Your task to perform on an android device: change keyboard looks Image 0: 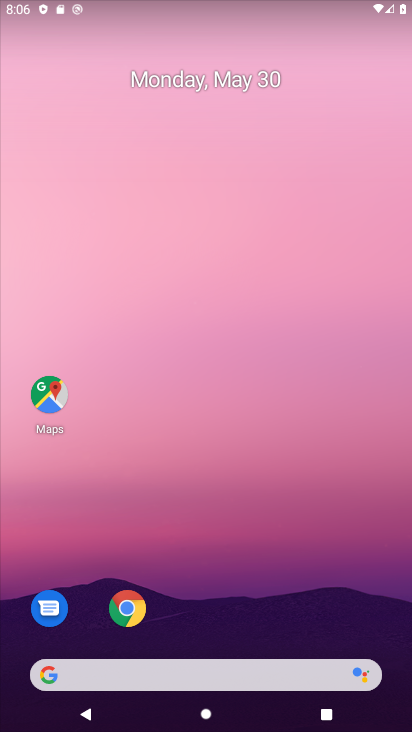
Step 0: drag from (388, 694) to (406, 37)
Your task to perform on an android device: change keyboard looks Image 1: 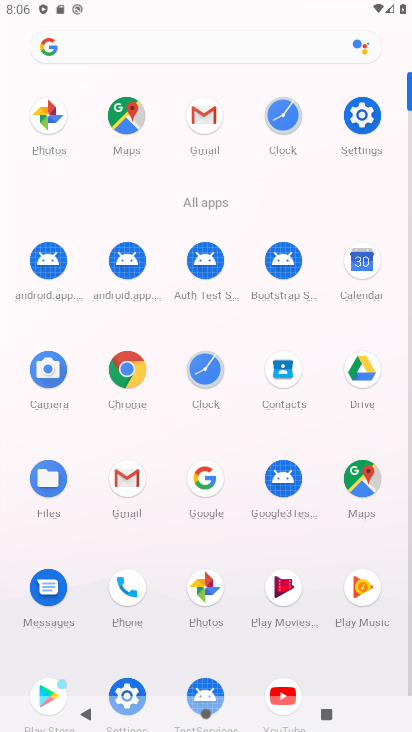
Step 1: click (364, 114)
Your task to perform on an android device: change keyboard looks Image 2: 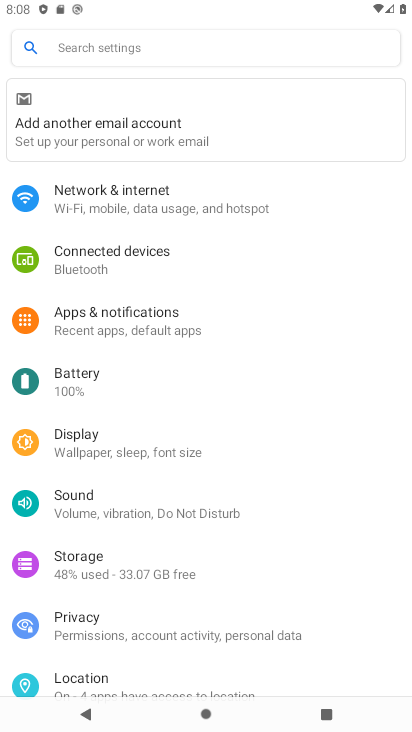
Step 2: drag from (319, 652) to (295, 298)
Your task to perform on an android device: change keyboard looks Image 3: 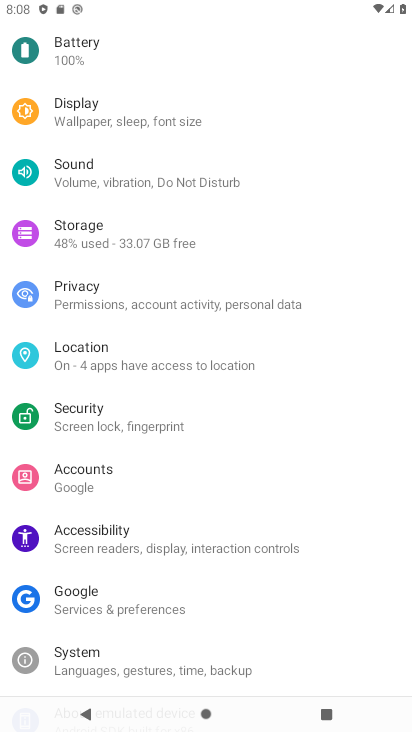
Step 3: click (86, 657)
Your task to perform on an android device: change keyboard looks Image 4: 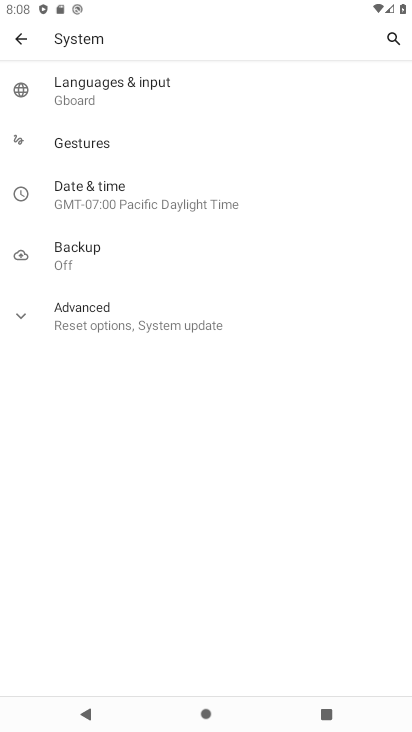
Step 4: click (86, 99)
Your task to perform on an android device: change keyboard looks Image 5: 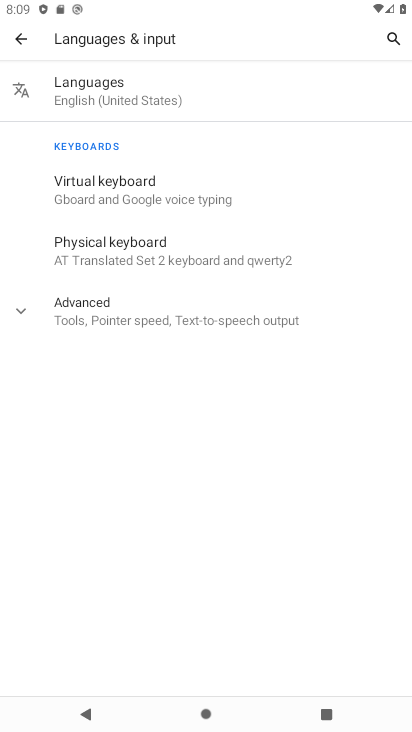
Step 5: click (91, 190)
Your task to perform on an android device: change keyboard looks Image 6: 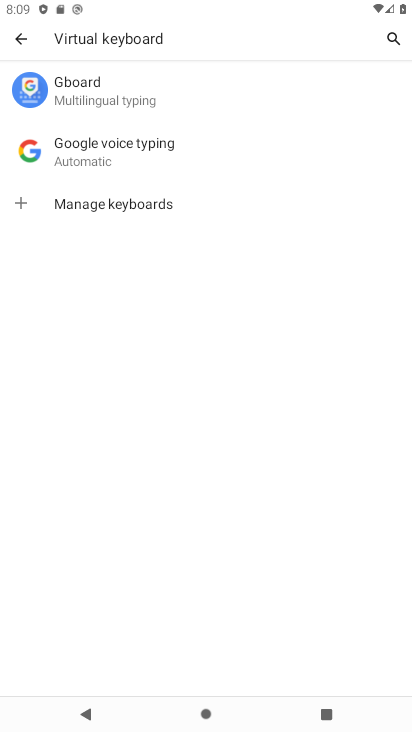
Step 6: click (75, 92)
Your task to perform on an android device: change keyboard looks Image 7: 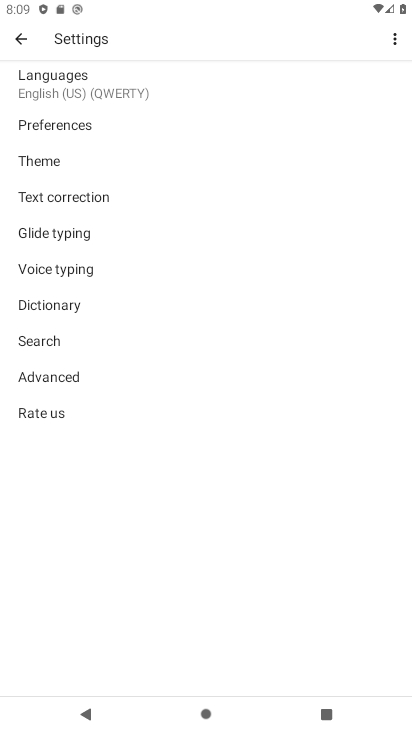
Step 7: click (47, 165)
Your task to perform on an android device: change keyboard looks Image 8: 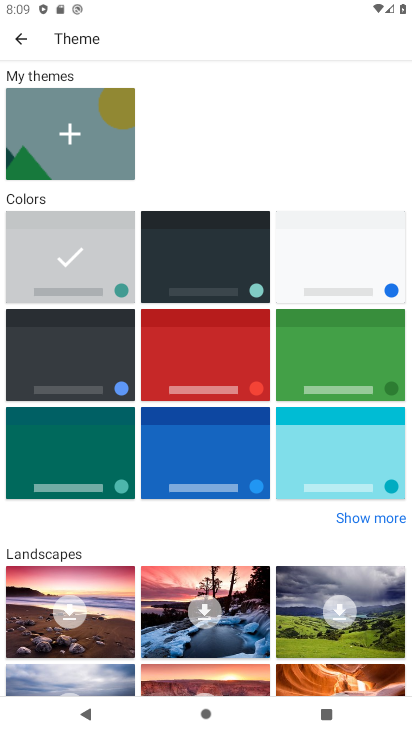
Step 8: click (108, 466)
Your task to perform on an android device: change keyboard looks Image 9: 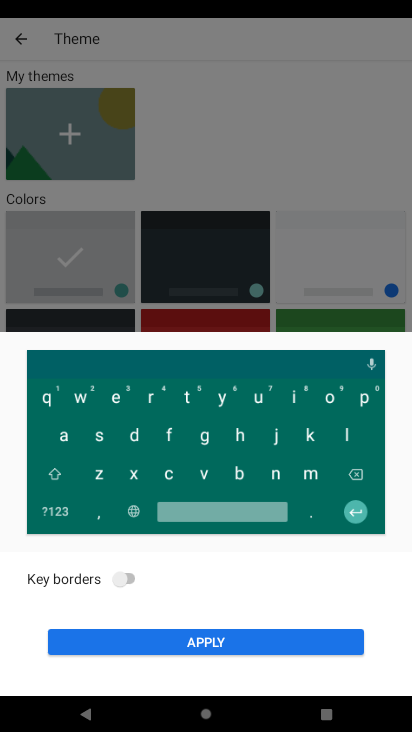
Step 9: click (130, 577)
Your task to perform on an android device: change keyboard looks Image 10: 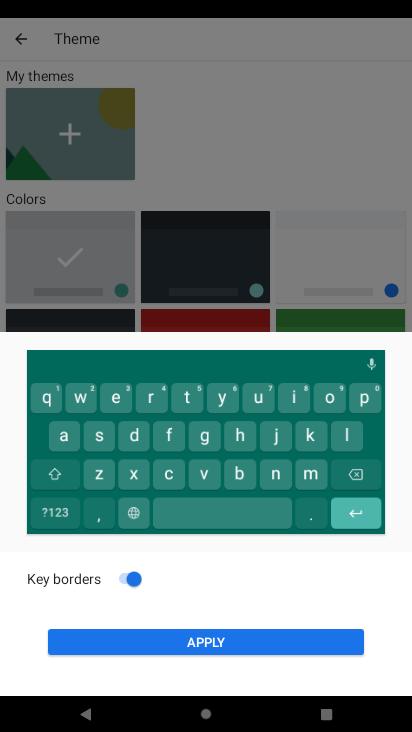
Step 10: click (203, 635)
Your task to perform on an android device: change keyboard looks Image 11: 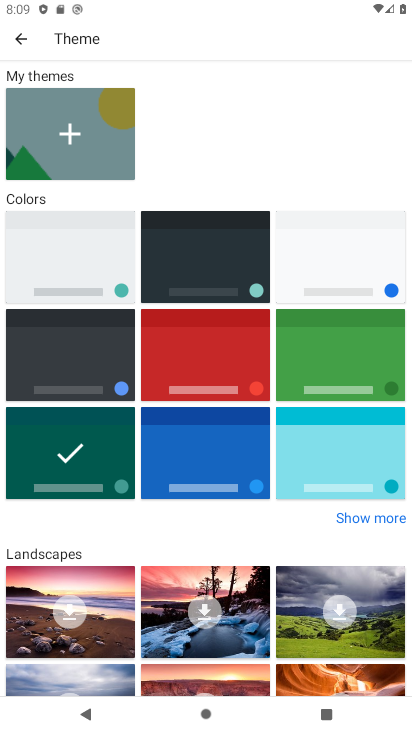
Step 11: task complete